Your task to perform on an android device: open sync settings in chrome Image 0: 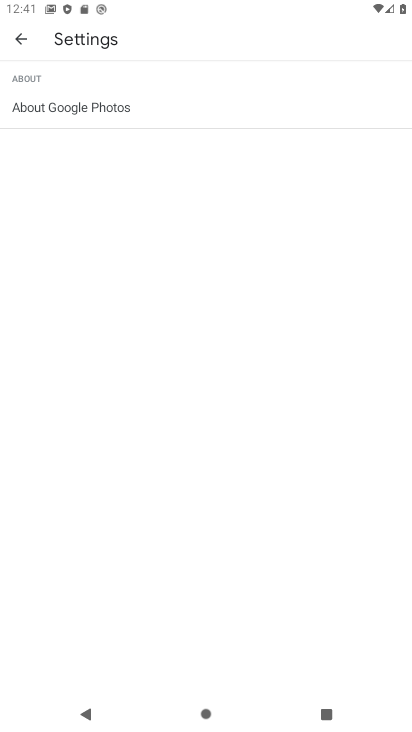
Step 0: press home button
Your task to perform on an android device: open sync settings in chrome Image 1: 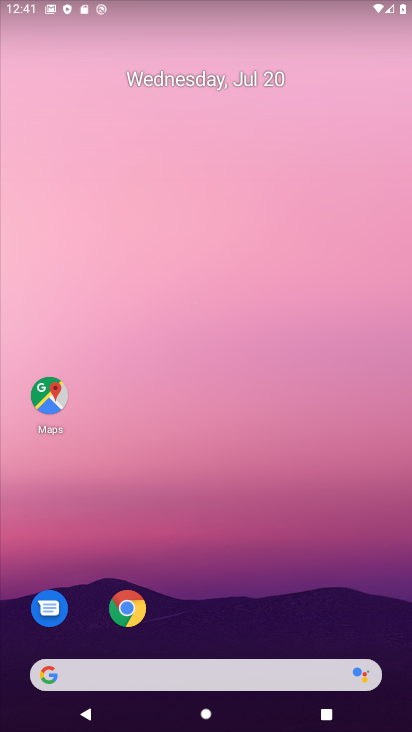
Step 1: click (127, 612)
Your task to perform on an android device: open sync settings in chrome Image 2: 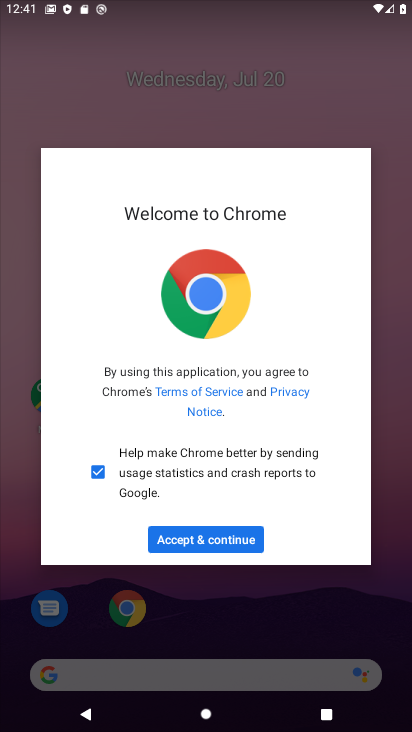
Step 2: click (204, 540)
Your task to perform on an android device: open sync settings in chrome Image 3: 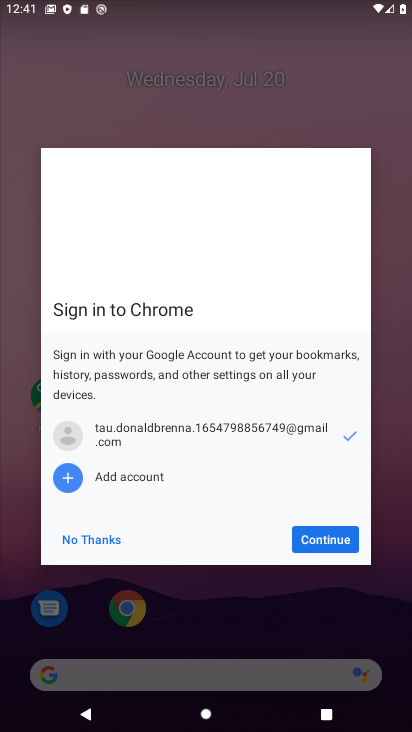
Step 3: click (340, 539)
Your task to perform on an android device: open sync settings in chrome Image 4: 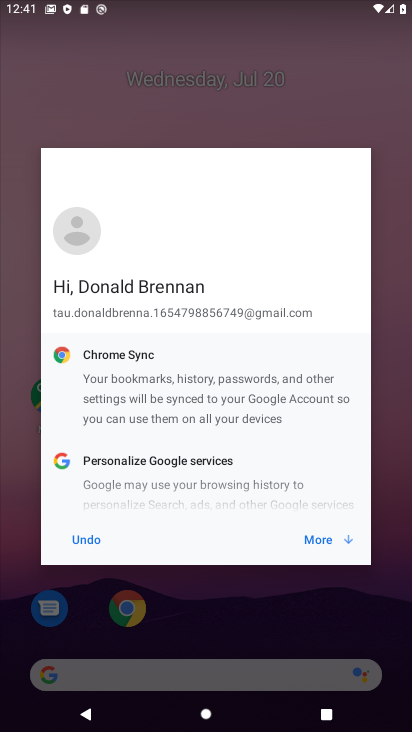
Step 4: click (330, 539)
Your task to perform on an android device: open sync settings in chrome Image 5: 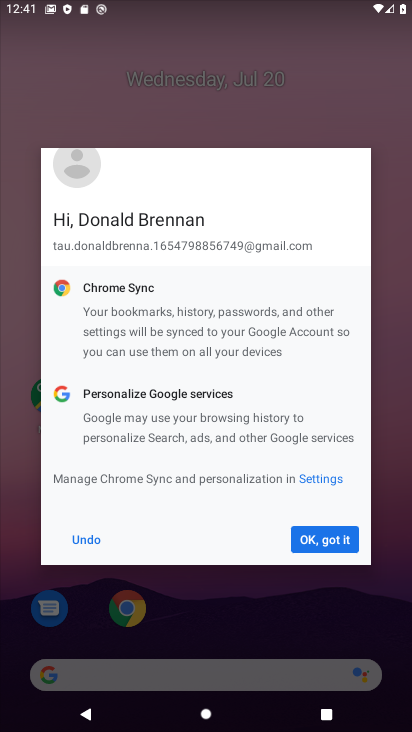
Step 5: click (330, 539)
Your task to perform on an android device: open sync settings in chrome Image 6: 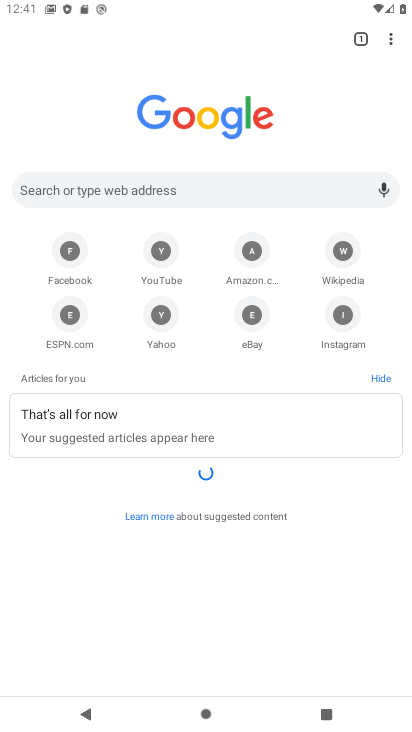
Step 6: click (389, 47)
Your task to perform on an android device: open sync settings in chrome Image 7: 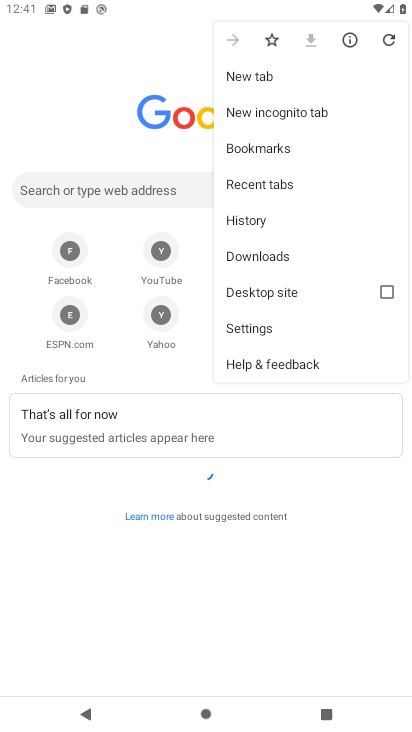
Step 7: click (255, 324)
Your task to perform on an android device: open sync settings in chrome Image 8: 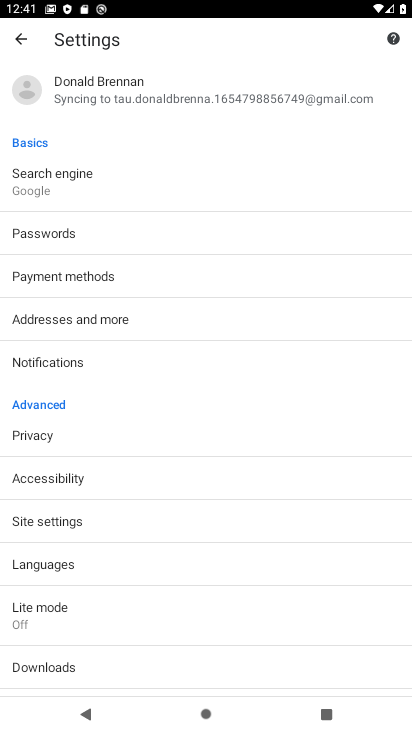
Step 8: click (53, 514)
Your task to perform on an android device: open sync settings in chrome Image 9: 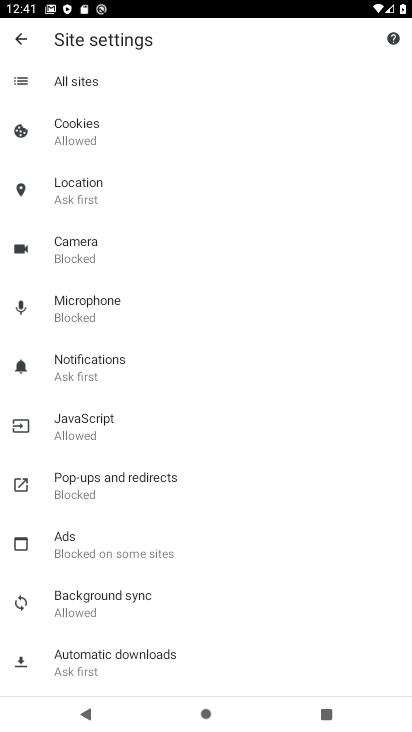
Step 9: click (82, 601)
Your task to perform on an android device: open sync settings in chrome Image 10: 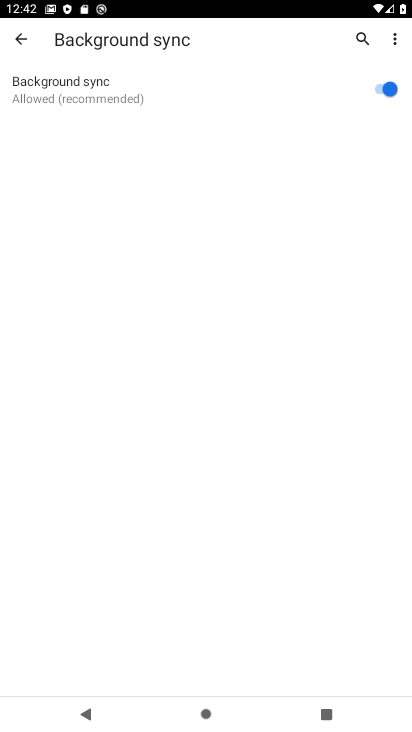
Step 10: task complete